Your task to perform on an android device: Play the last video I watched on Youtube Image 0: 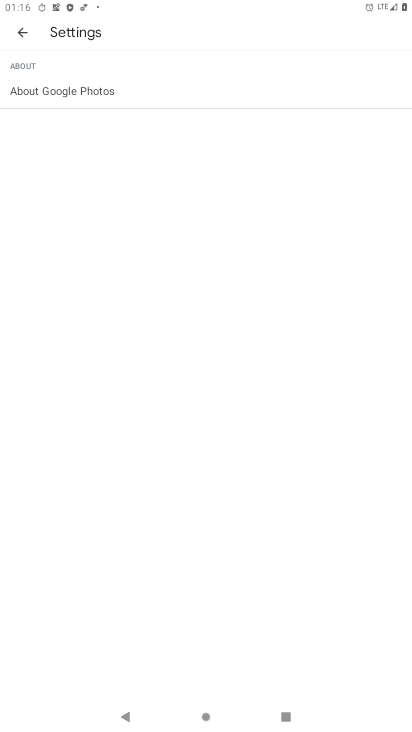
Step 0: press home button
Your task to perform on an android device: Play the last video I watched on Youtube Image 1: 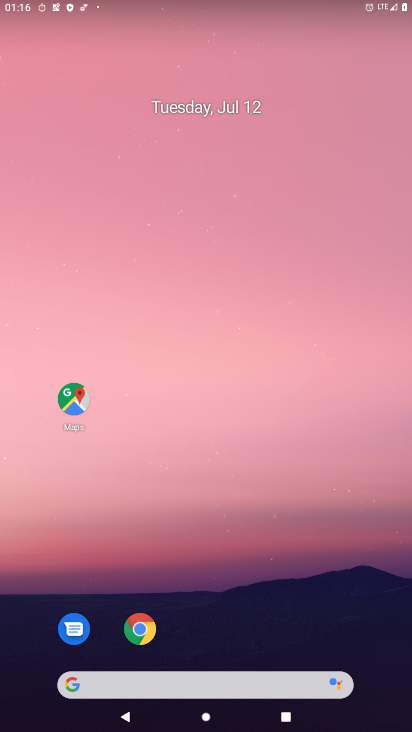
Step 1: drag from (215, 84) to (276, 20)
Your task to perform on an android device: Play the last video I watched on Youtube Image 2: 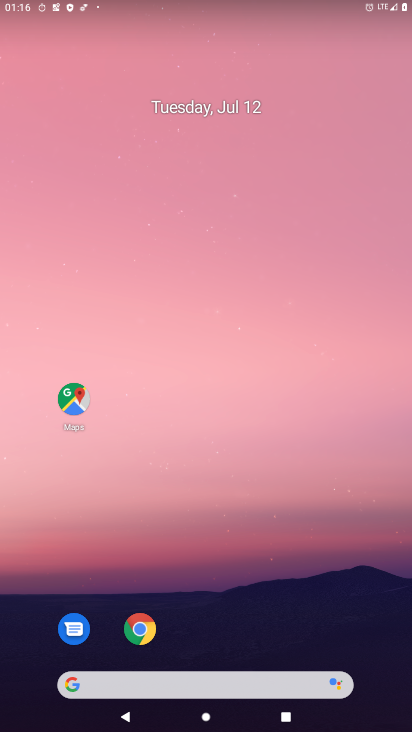
Step 2: drag from (114, 432) to (271, 13)
Your task to perform on an android device: Play the last video I watched on Youtube Image 3: 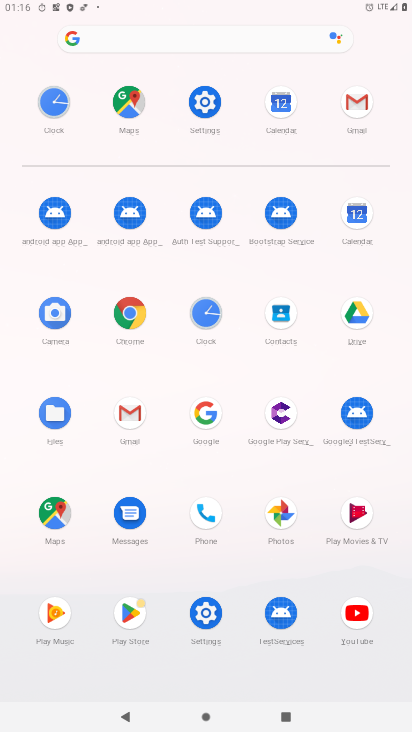
Step 3: click (362, 609)
Your task to perform on an android device: Play the last video I watched on Youtube Image 4: 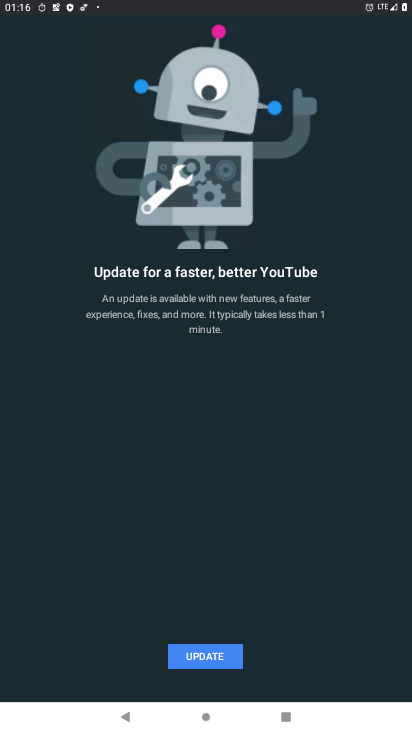
Step 4: click (191, 649)
Your task to perform on an android device: Play the last video I watched on Youtube Image 5: 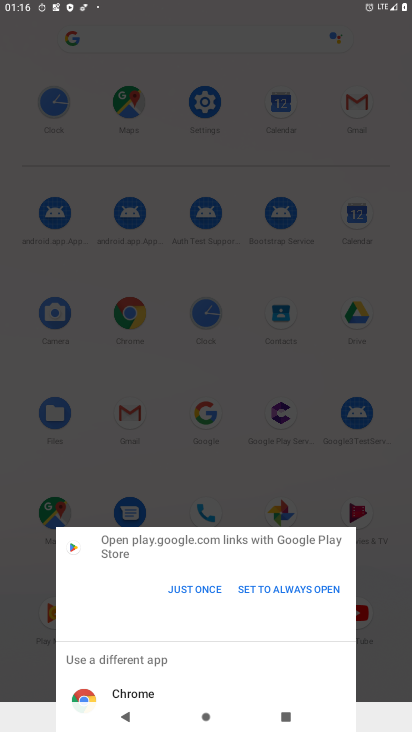
Step 5: click (188, 589)
Your task to perform on an android device: Play the last video I watched on Youtube Image 6: 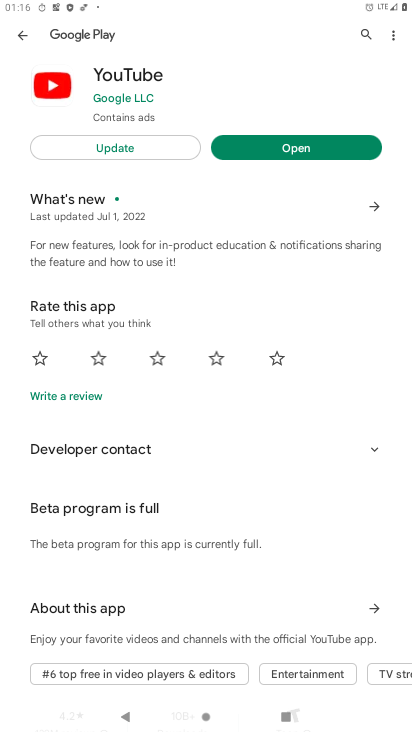
Step 6: click (292, 135)
Your task to perform on an android device: Play the last video I watched on Youtube Image 7: 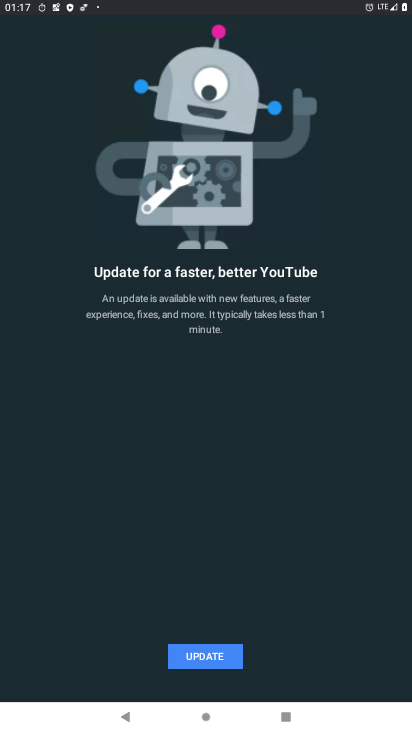
Step 7: task complete